Your task to perform on an android device: When is my next appointment? Image 0: 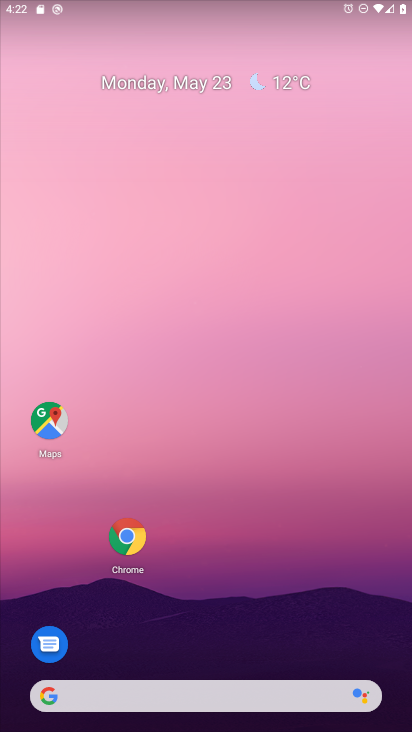
Step 0: drag from (223, 595) to (244, 251)
Your task to perform on an android device: When is my next appointment? Image 1: 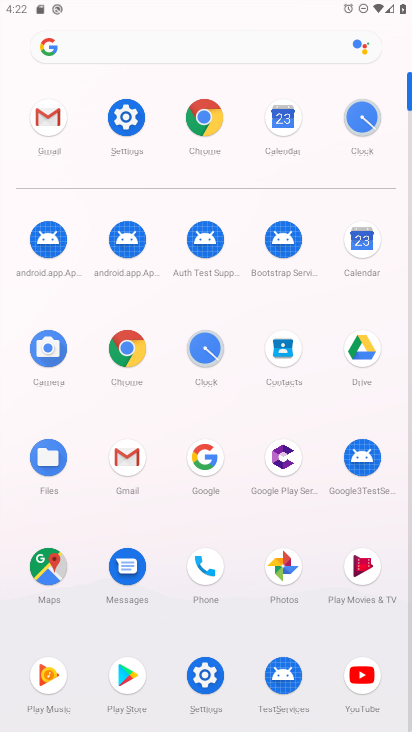
Step 1: click (365, 235)
Your task to perform on an android device: When is my next appointment? Image 2: 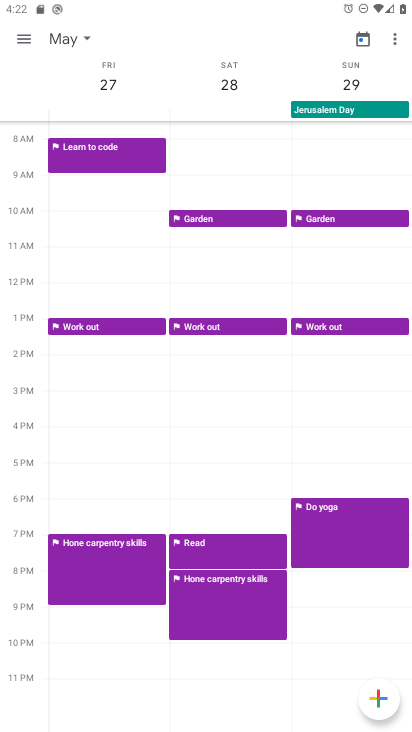
Step 2: click (77, 32)
Your task to perform on an android device: When is my next appointment? Image 3: 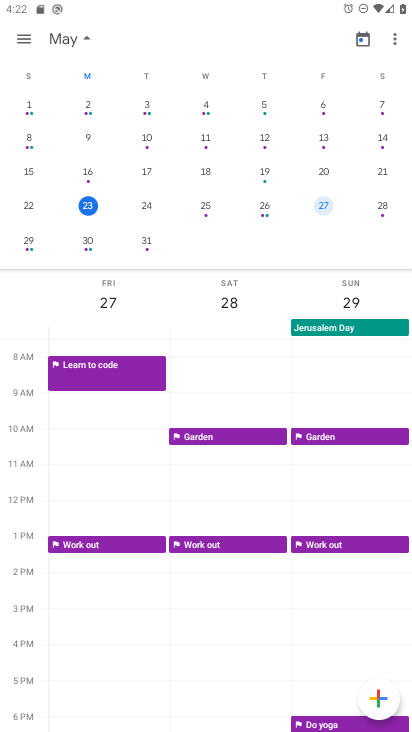
Step 3: click (99, 203)
Your task to perform on an android device: When is my next appointment? Image 4: 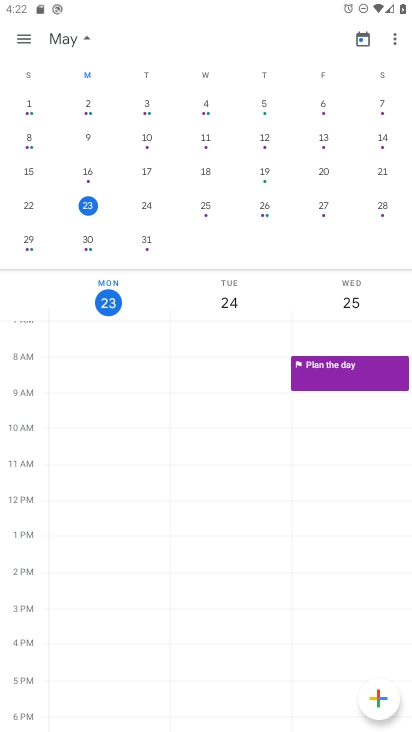
Step 4: click (97, 202)
Your task to perform on an android device: When is my next appointment? Image 5: 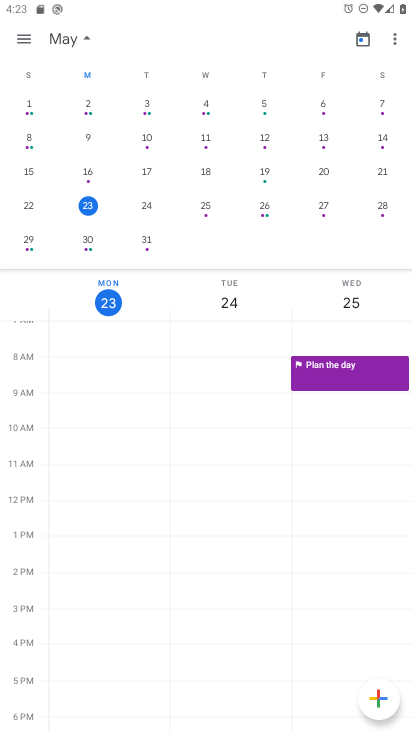
Step 5: task complete